Your task to perform on an android device: Open Maps and search for coffee Image 0: 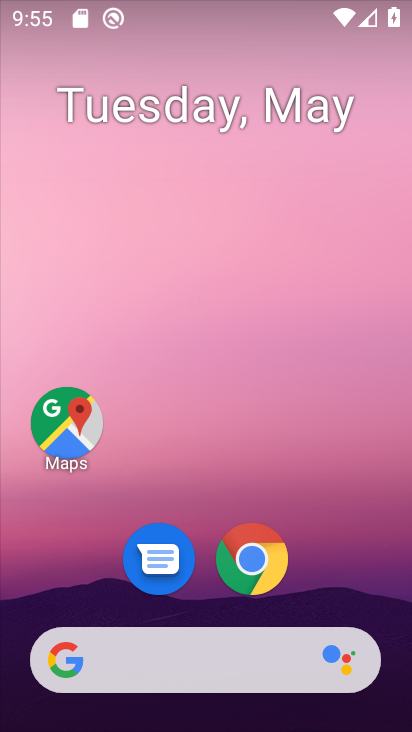
Step 0: drag from (397, 629) to (301, 73)
Your task to perform on an android device: Open Maps and search for coffee Image 1: 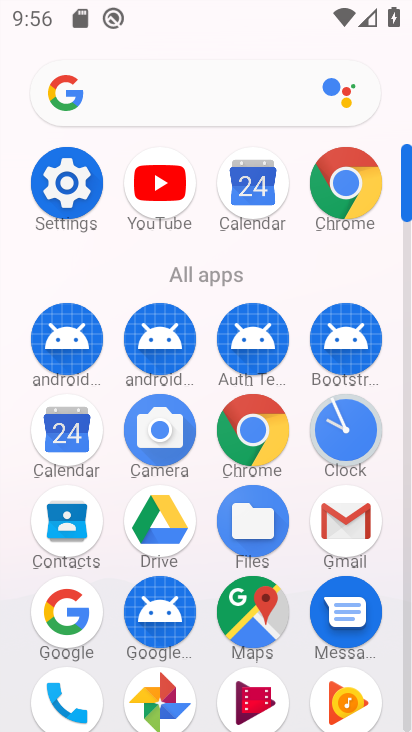
Step 1: click (252, 607)
Your task to perform on an android device: Open Maps and search for coffee Image 2: 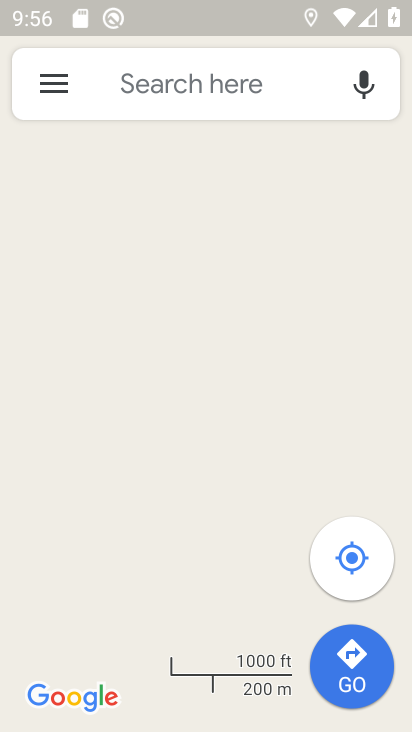
Step 2: click (145, 85)
Your task to perform on an android device: Open Maps and search for coffee Image 3: 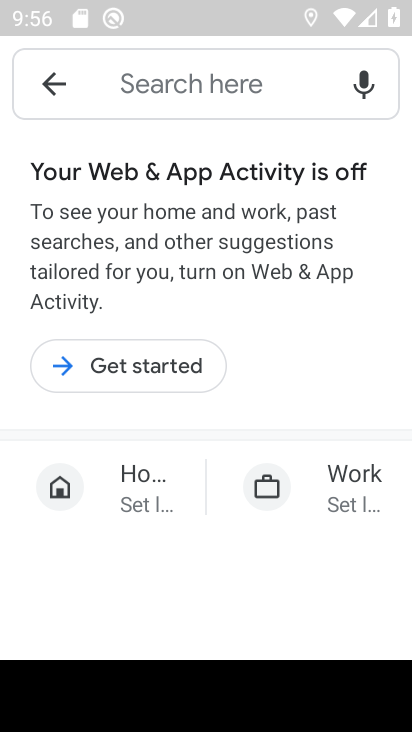
Step 3: click (103, 382)
Your task to perform on an android device: Open Maps and search for coffee Image 4: 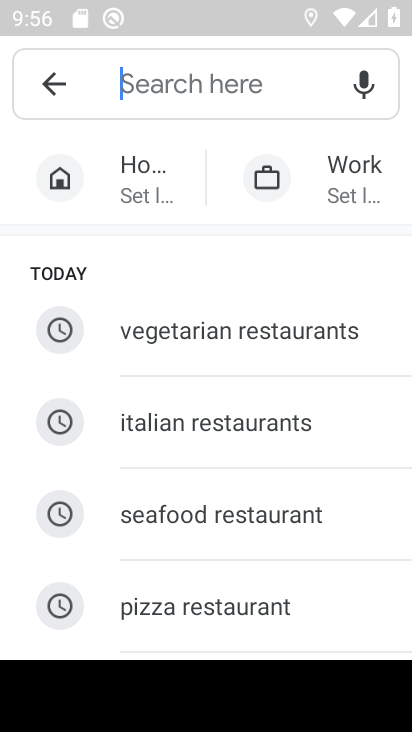
Step 4: type "coffee"
Your task to perform on an android device: Open Maps and search for coffee Image 5: 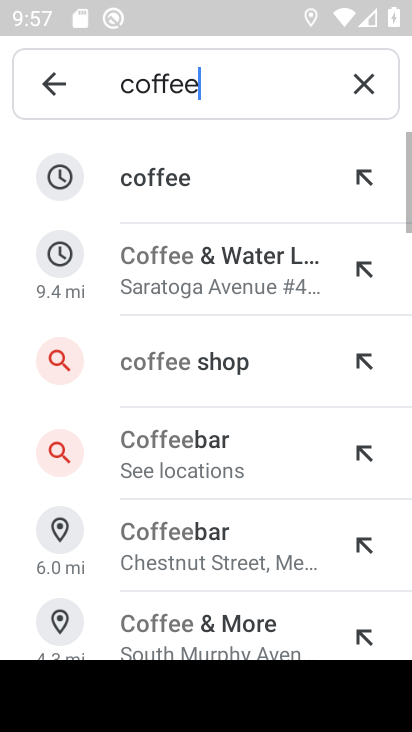
Step 5: click (194, 173)
Your task to perform on an android device: Open Maps and search for coffee Image 6: 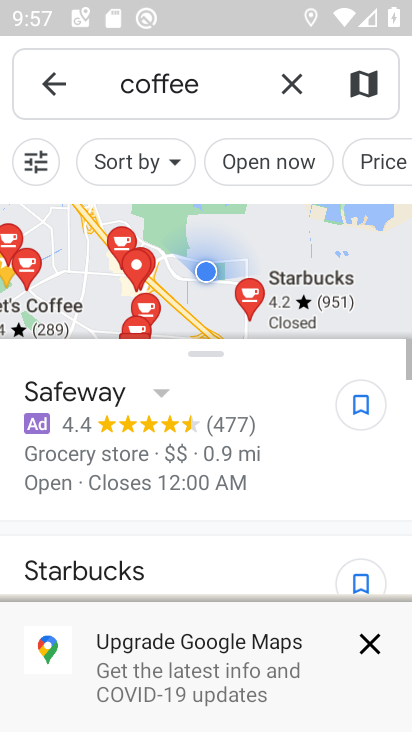
Step 6: task complete